Your task to perform on an android device: turn on translation in the chrome app Image 0: 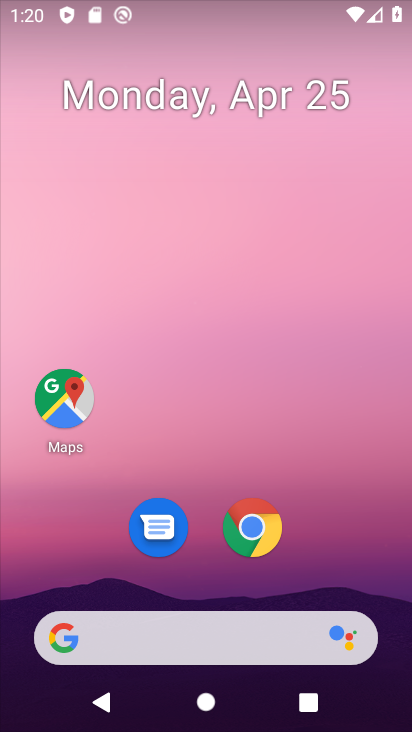
Step 0: click (252, 74)
Your task to perform on an android device: turn on translation in the chrome app Image 1: 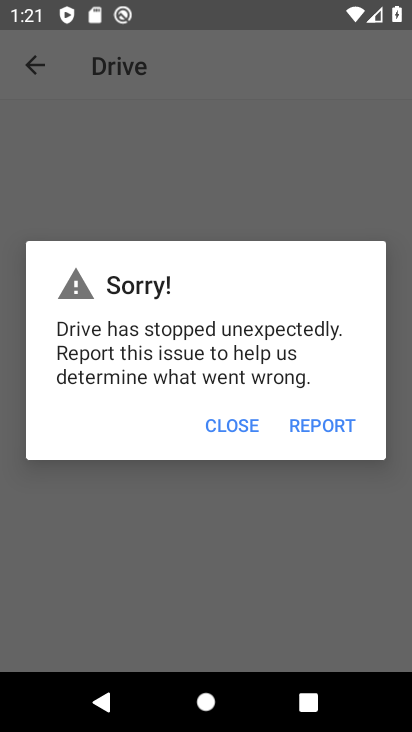
Step 1: press home button
Your task to perform on an android device: turn on translation in the chrome app Image 2: 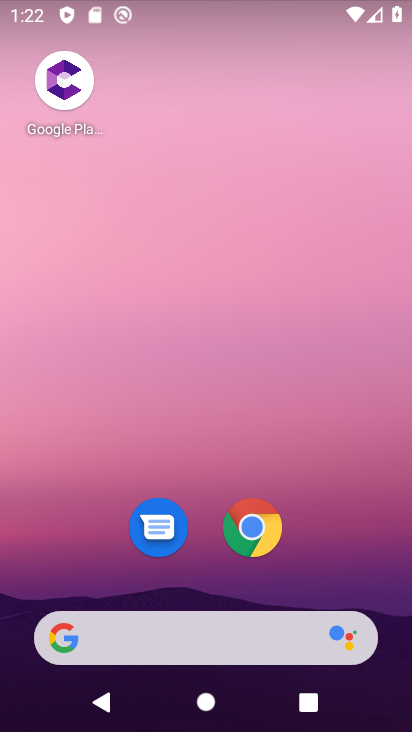
Step 2: drag from (387, 606) to (231, 23)
Your task to perform on an android device: turn on translation in the chrome app Image 3: 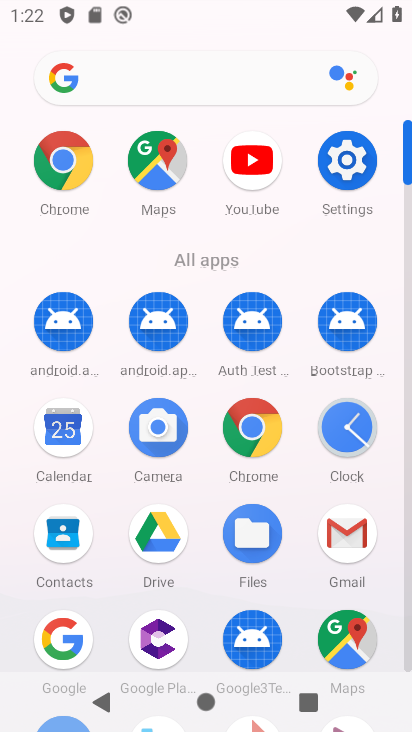
Step 3: click (79, 180)
Your task to perform on an android device: turn on translation in the chrome app Image 4: 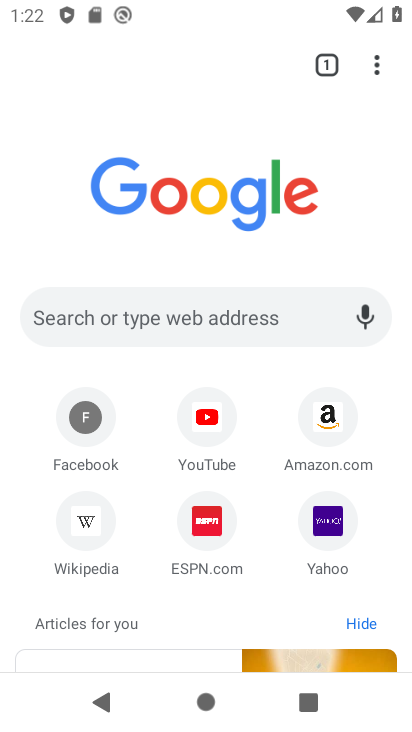
Step 4: click (377, 61)
Your task to perform on an android device: turn on translation in the chrome app Image 5: 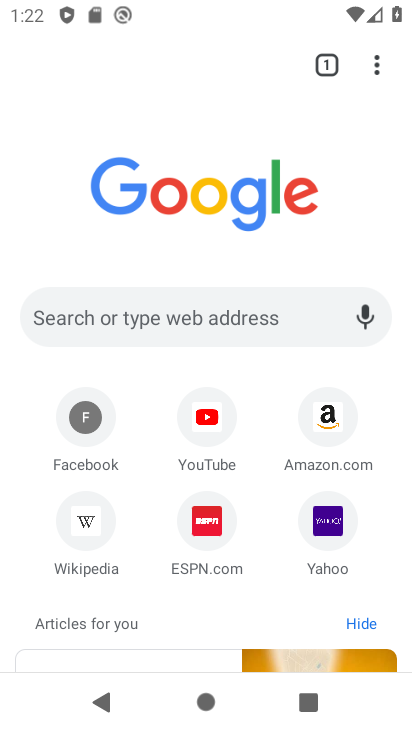
Step 5: click (376, 63)
Your task to perform on an android device: turn on translation in the chrome app Image 6: 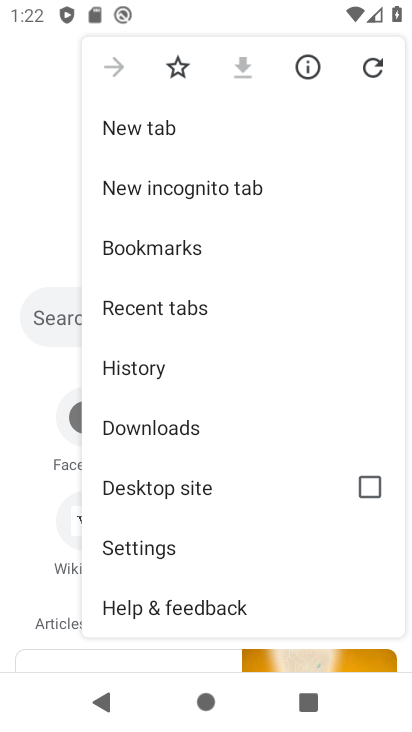
Step 6: click (183, 539)
Your task to perform on an android device: turn on translation in the chrome app Image 7: 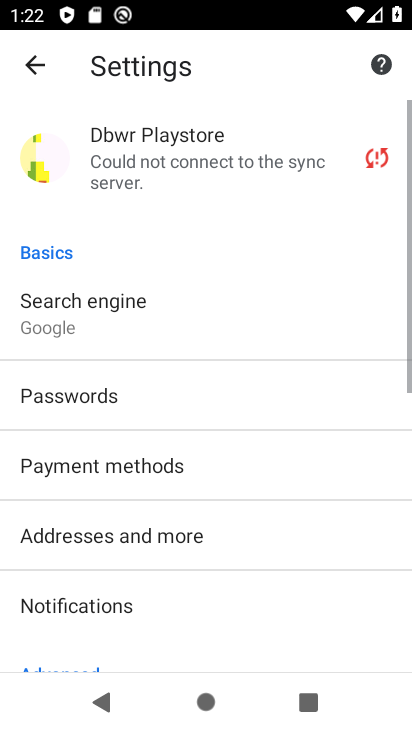
Step 7: drag from (139, 580) to (186, 150)
Your task to perform on an android device: turn on translation in the chrome app Image 8: 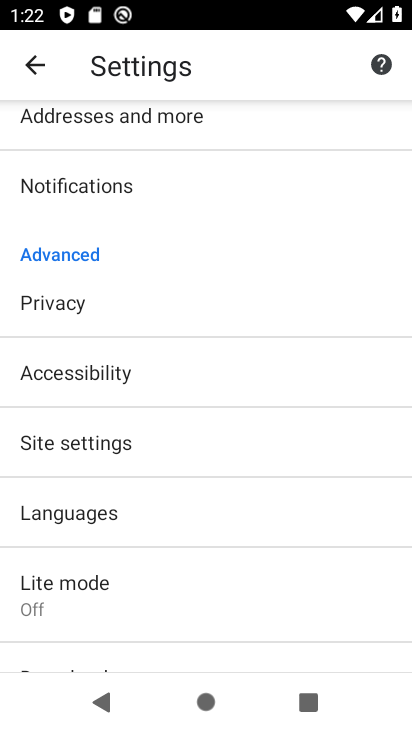
Step 8: click (184, 517)
Your task to perform on an android device: turn on translation in the chrome app Image 9: 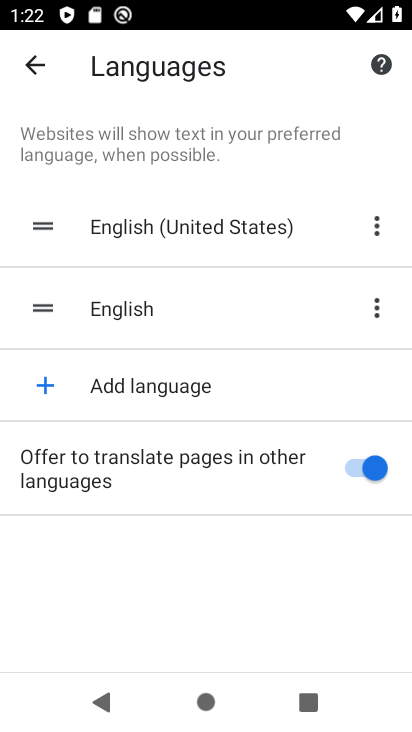
Step 9: task complete